Your task to perform on an android device: add a contact in the contacts app Image 0: 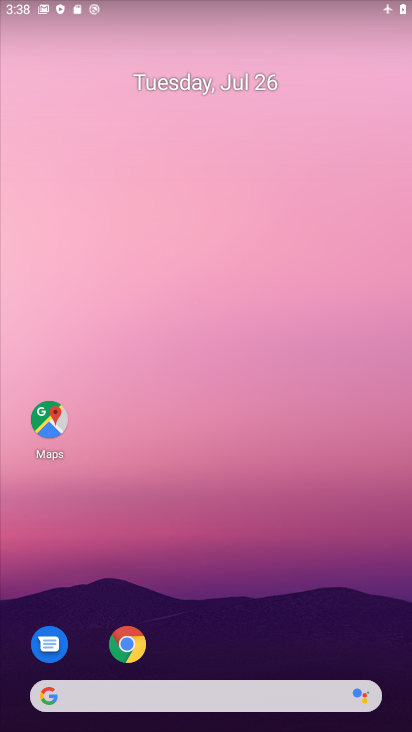
Step 0: drag from (401, 684) to (342, 100)
Your task to perform on an android device: add a contact in the contacts app Image 1: 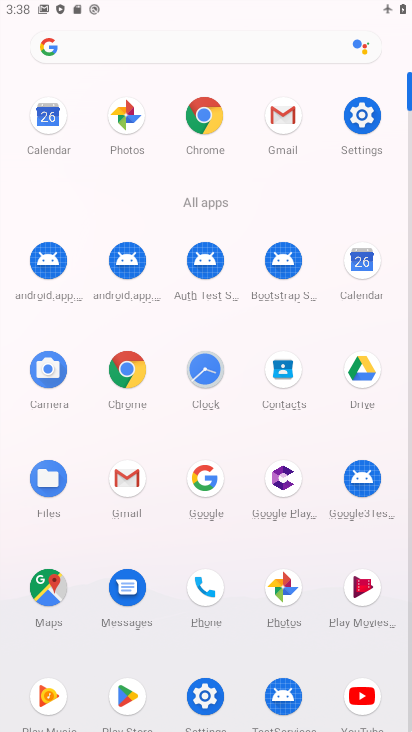
Step 1: click (280, 370)
Your task to perform on an android device: add a contact in the contacts app Image 2: 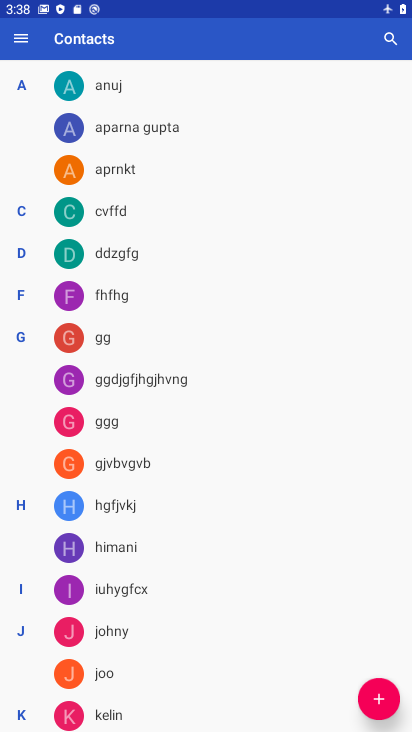
Step 2: click (380, 699)
Your task to perform on an android device: add a contact in the contacts app Image 3: 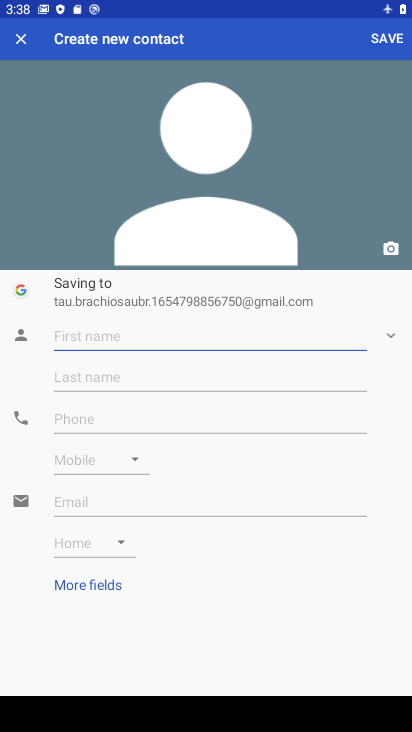
Step 3: type "ruifjgmv"
Your task to perform on an android device: add a contact in the contacts app Image 4: 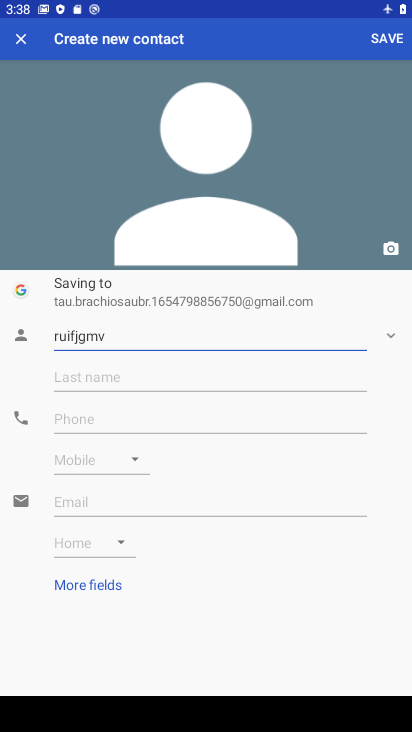
Step 4: click (83, 427)
Your task to perform on an android device: add a contact in the contacts app Image 5: 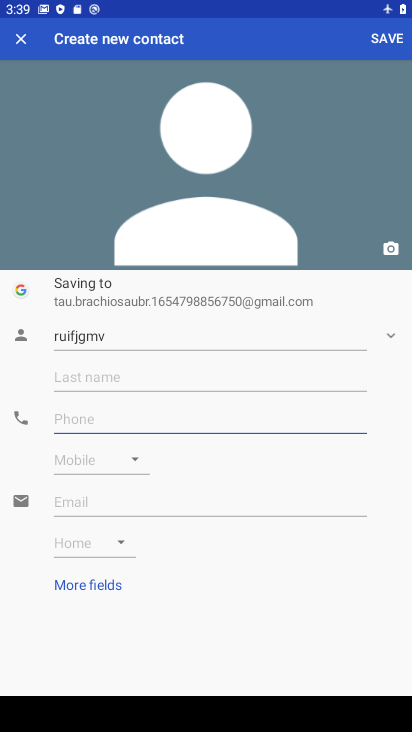
Step 5: type "0987654331"
Your task to perform on an android device: add a contact in the contacts app Image 6: 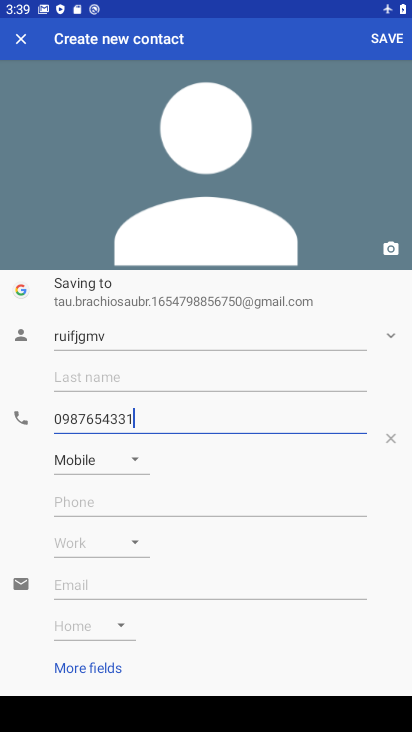
Step 6: click (389, 38)
Your task to perform on an android device: add a contact in the contacts app Image 7: 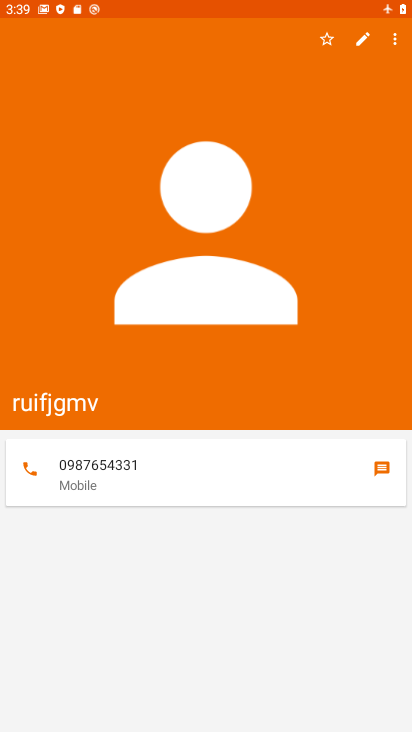
Step 7: task complete